Your task to perform on an android device: Go to calendar. Show me events next week Image 0: 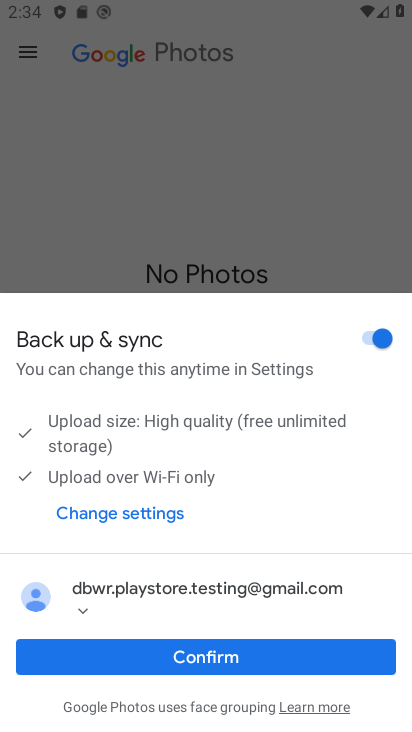
Step 0: press home button
Your task to perform on an android device: Go to calendar. Show me events next week Image 1: 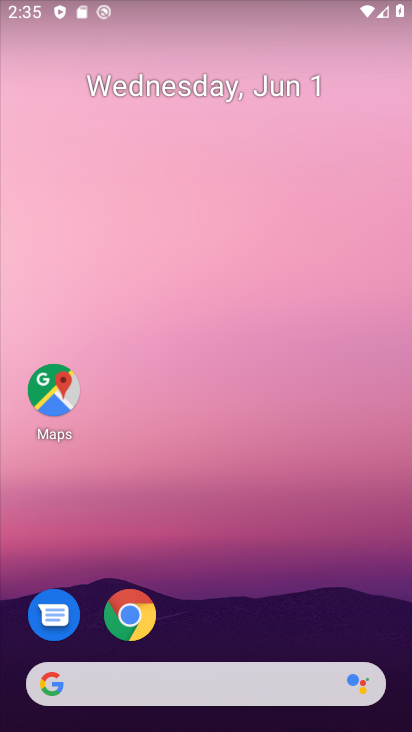
Step 1: drag from (245, 647) to (201, 204)
Your task to perform on an android device: Go to calendar. Show me events next week Image 2: 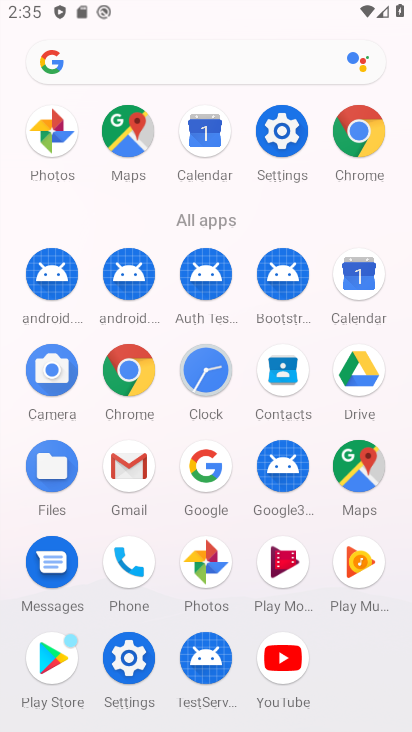
Step 2: click (361, 290)
Your task to perform on an android device: Go to calendar. Show me events next week Image 3: 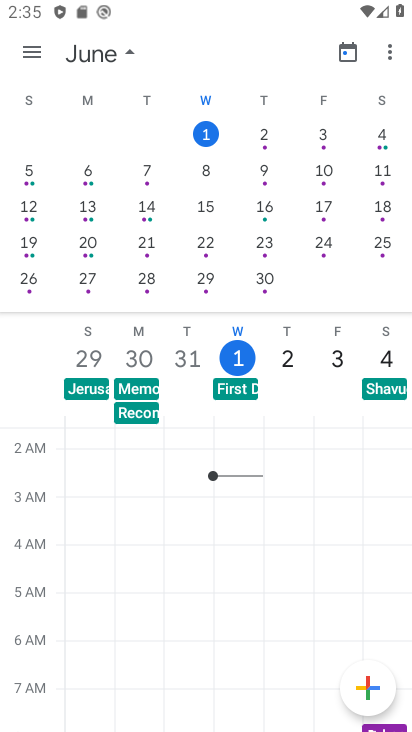
Step 3: drag from (213, 169) to (118, 118)
Your task to perform on an android device: Go to calendar. Show me events next week Image 4: 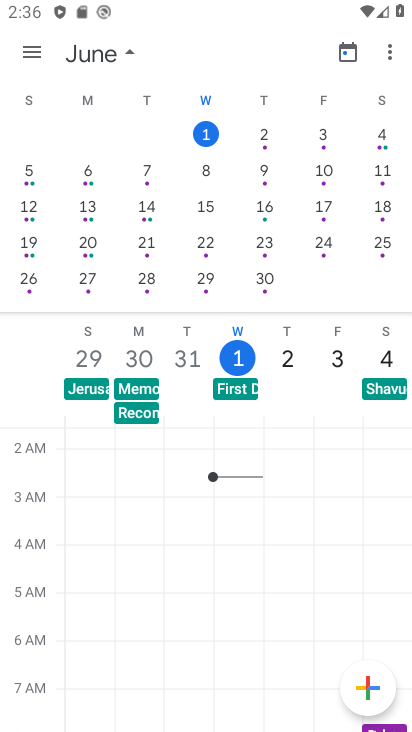
Step 4: click (35, 46)
Your task to perform on an android device: Go to calendar. Show me events next week Image 5: 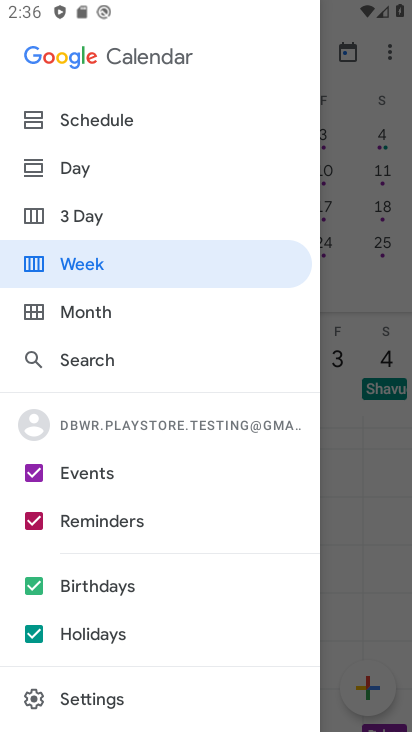
Step 5: click (38, 639)
Your task to perform on an android device: Go to calendar. Show me events next week Image 6: 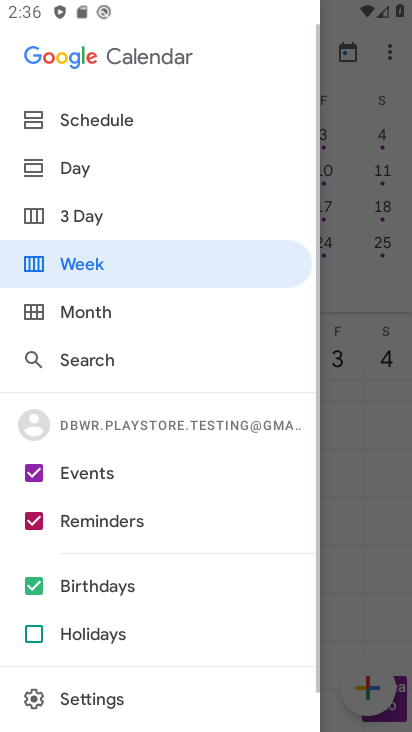
Step 6: click (38, 580)
Your task to perform on an android device: Go to calendar. Show me events next week Image 7: 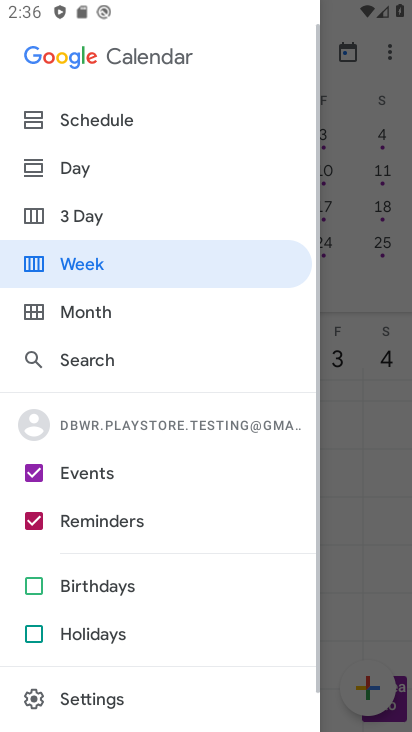
Step 7: click (36, 517)
Your task to perform on an android device: Go to calendar. Show me events next week Image 8: 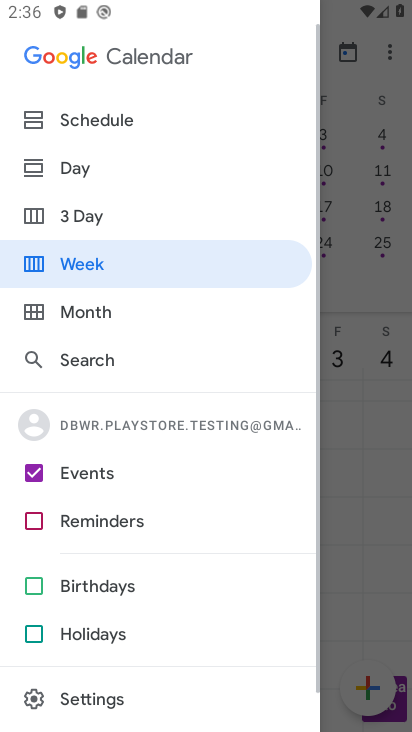
Step 8: click (153, 257)
Your task to perform on an android device: Go to calendar. Show me events next week Image 9: 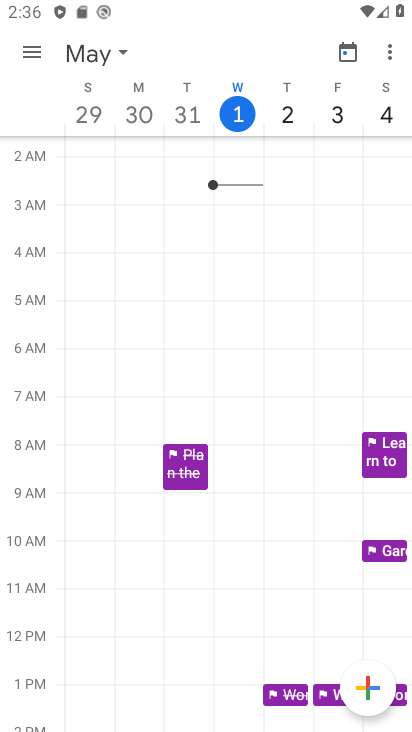
Step 9: task complete